Your task to perform on an android device: toggle notification dots Image 0: 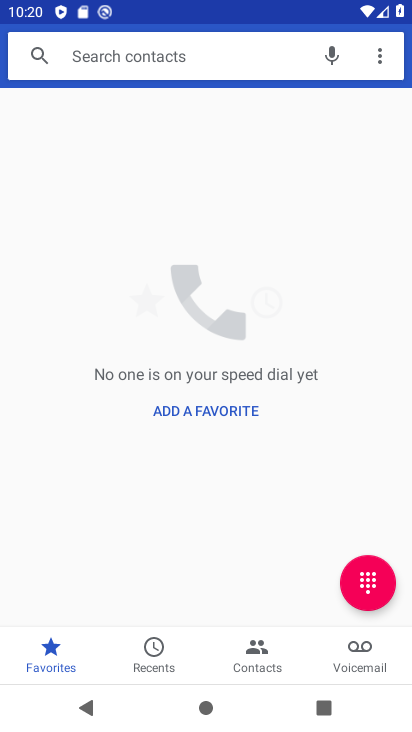
Step 0: press home button
Your task to perform on an android device: toggle notification dots Image 1: 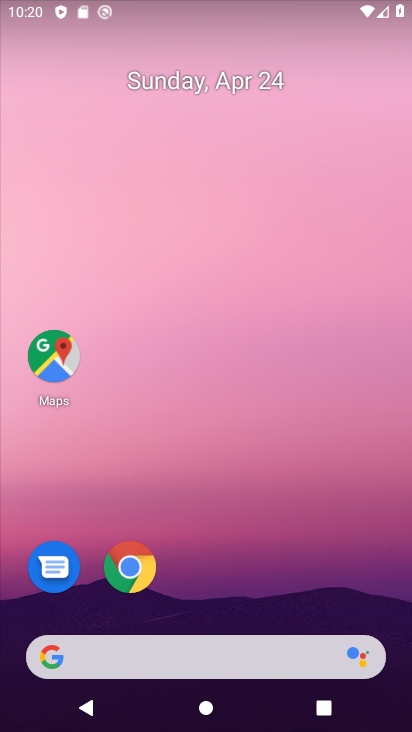
Step 1: click (125, 571)
Your task to perform on an android device: toggle notification dots Image 2: 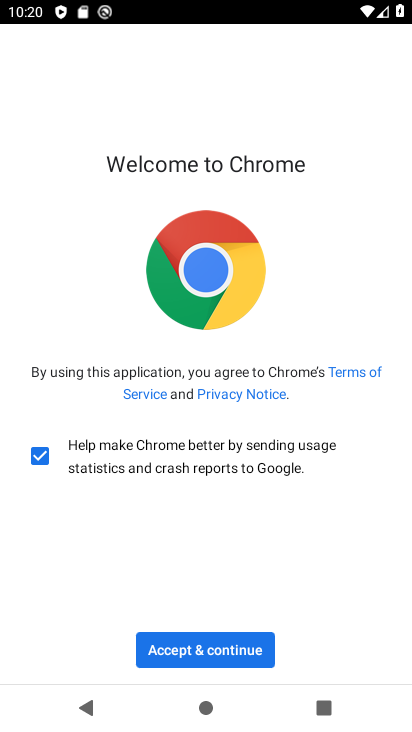
Step 2: click (215, 662)
Your task to perform on an android device: toggle notification dots Image 3: 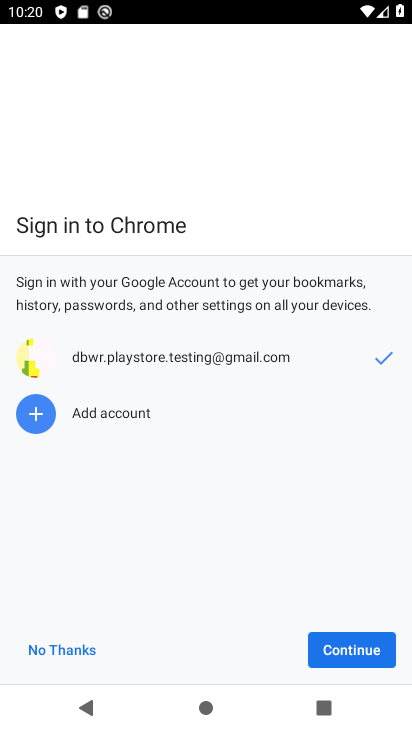
Step 3: click (382, 646)
Your task to perform on an android device: toggle notification dots Image 4: 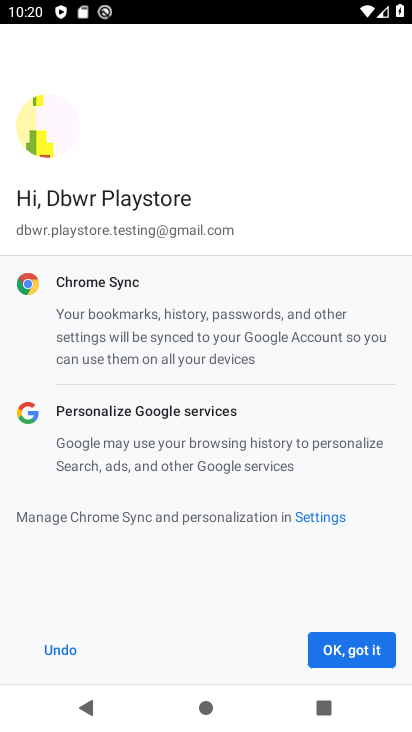
Step 4: click (364, 645)
Your task to perform on an android device: toggle notification dots Image 5: 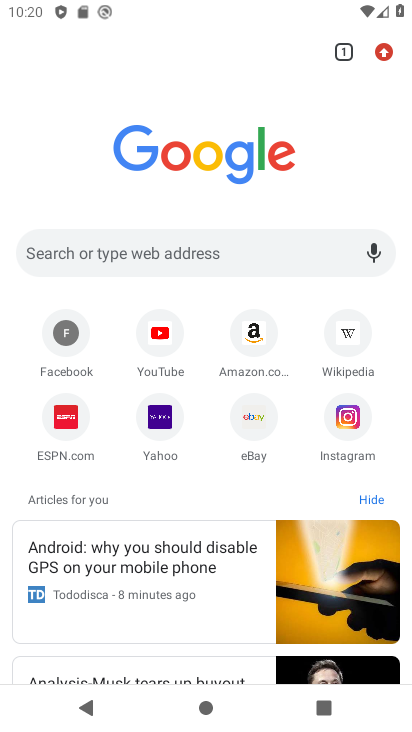
Step 5: click (381, 56)
Your task to perform on an android device: toggle notification dots Image 6: 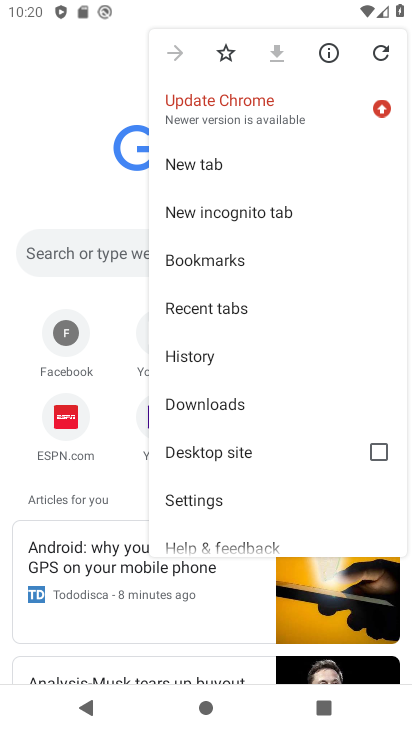
Step 6: click (198, 501)
Your task to perform on an android device: toggle notification dots Image 7: 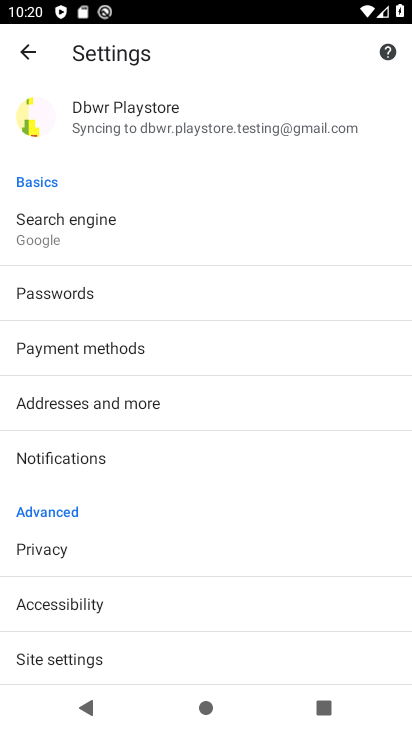
Step 7: drag from (74, 628) to (108, 368)
Your task to perform on an android device: toggle notification dots Image 8: 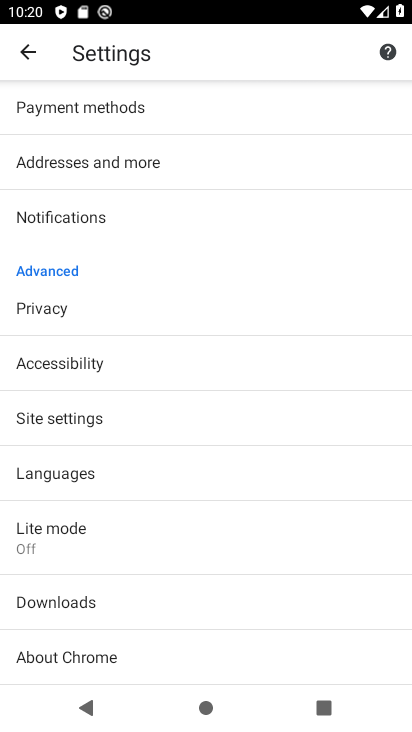
Step 8: click (75, 216)
Your task to perform on an android device: toggle notification dots Image 9: 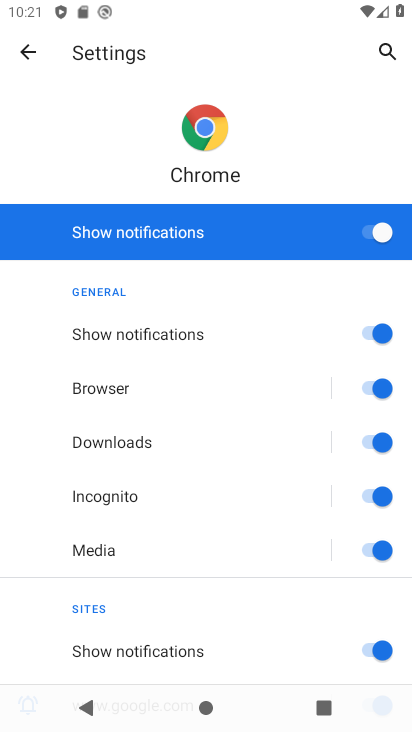
Step 9: drag from (157, 622) to (252, 286)
Your task to perform on an android device: toggle notification dots Image 10: 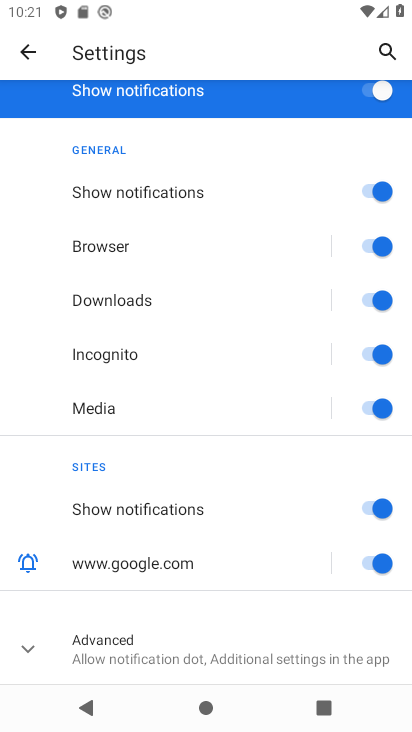
Step 10: click (26, 655)
Your task to perform on an android device: toggle notification dots Image 11: 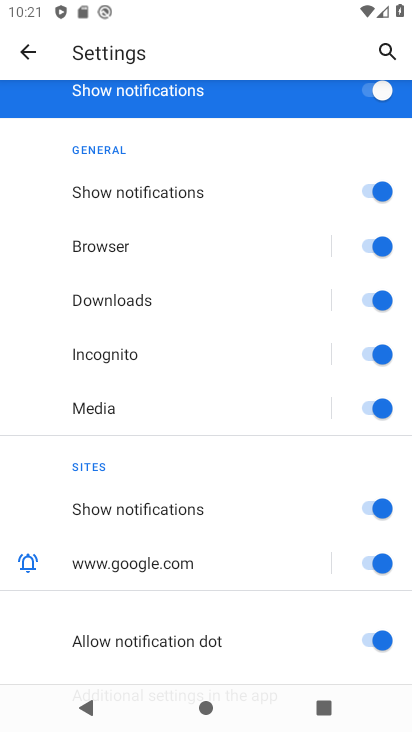
Step 11: click (380, 638)
Your task to perform on an android device: toggle notification dots Image 12: 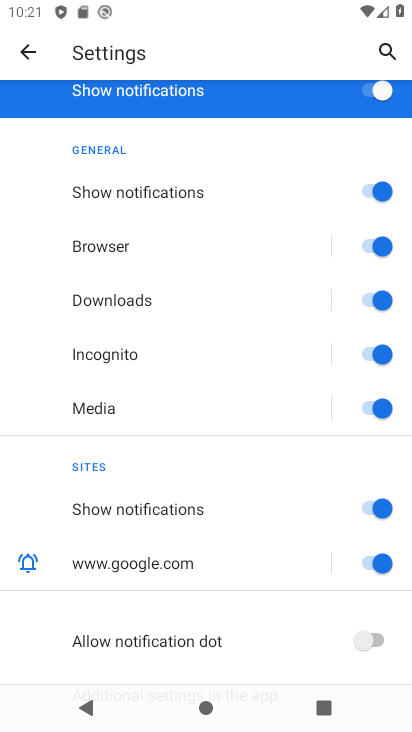
Step 12: task complete